Your task to perform on an android device: toggle notification dots Image 0: 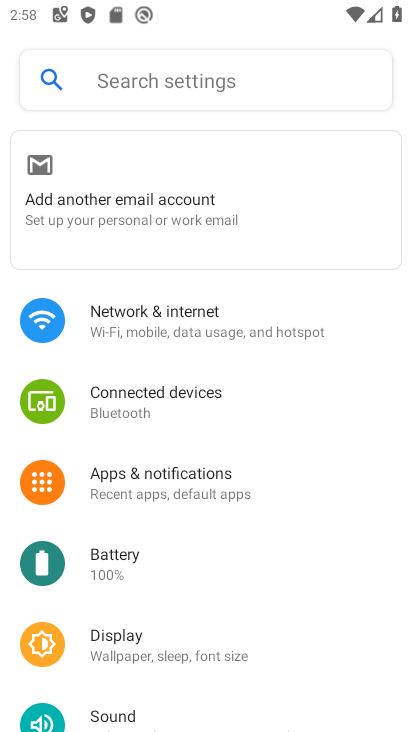
Step 0: press home button
Your task to perform on an android device: toggle notification dots Image 1: 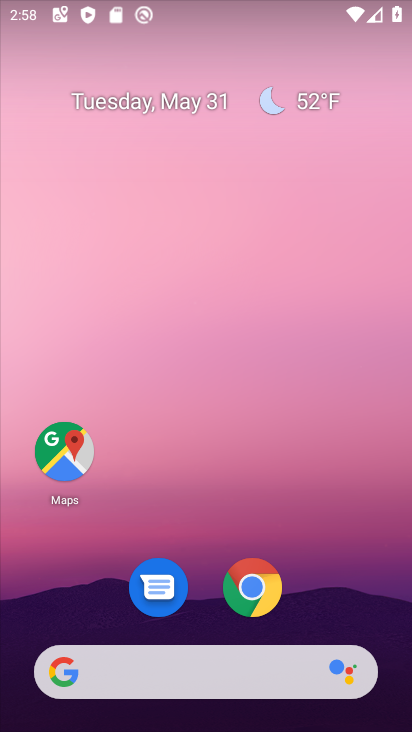
Step 1: drag from (348, 615) to (232, 141)
Your task to perform on an android device: toggle notification dots Image 2: 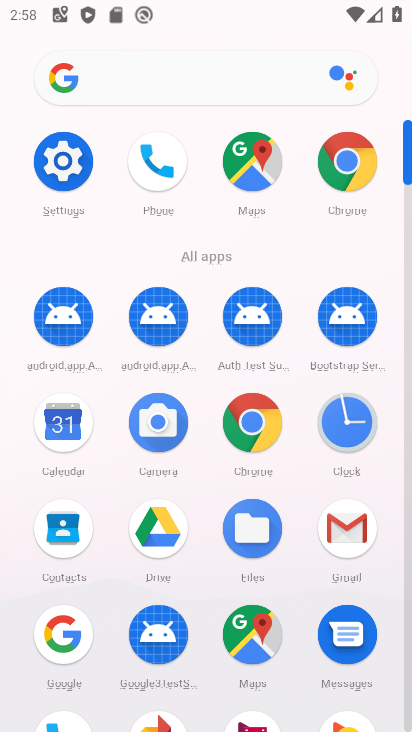
Step 2: click (59, 161)
Your task to perform on an android device: toggle notification dots Image 3: 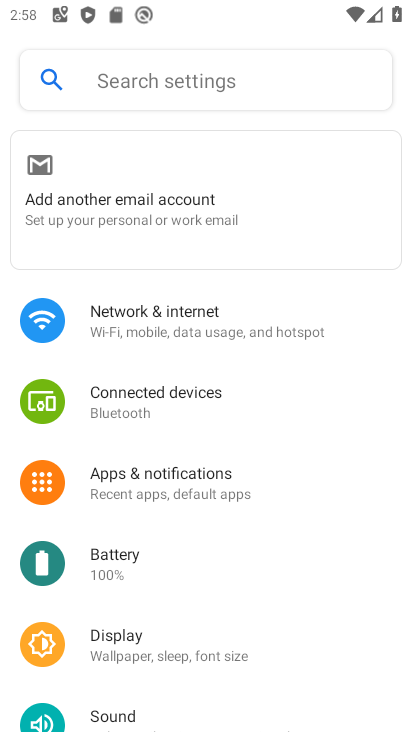
Step 3: click (159, 479)
Your task to perform on an android device: toggle notification dots Image 4: 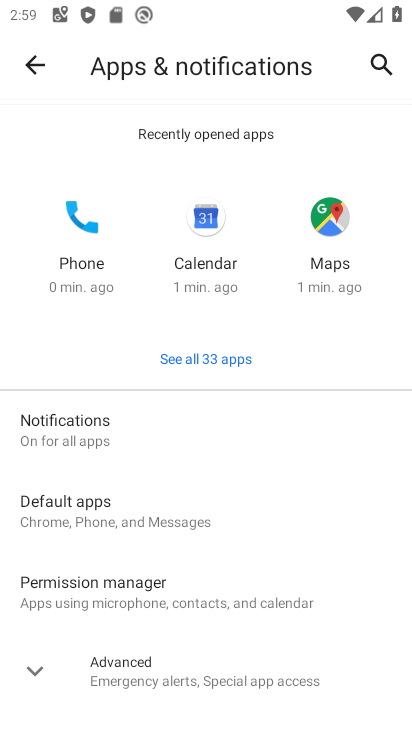
Step 4: click (216, 432)
Your task to perform on an android device: toggle notification dots Image 5: 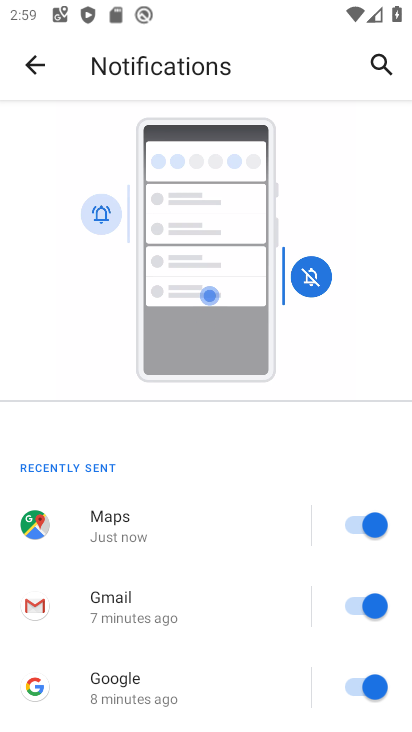
Step 5: drag from (256, 707) to (163, 115)
Your task to perform on an android device: toggle notification dots Image 6: 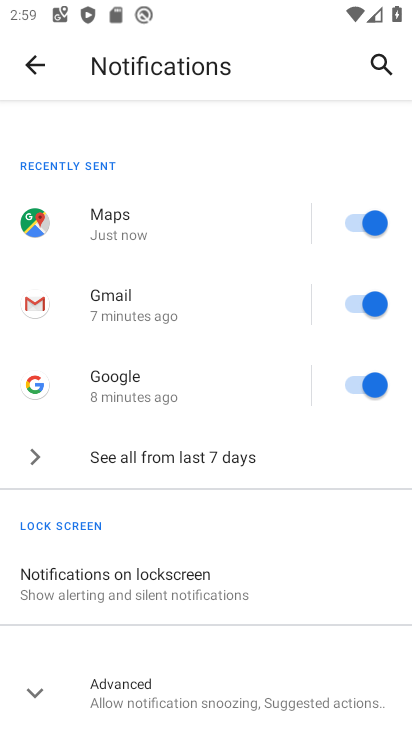
Step 6: click (201, 694)
Your task to perform on an android device: toggle notification dots Image 7: 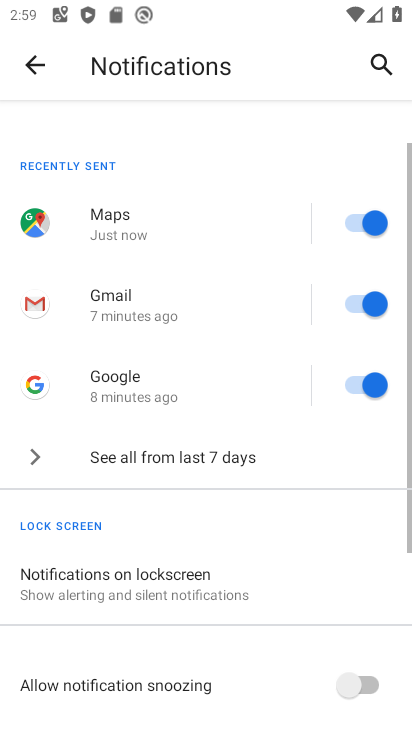
Step 7: drag from (234, 651) to (242, 136)
Your task to perform on an android device: toggle notification dots Image 8: 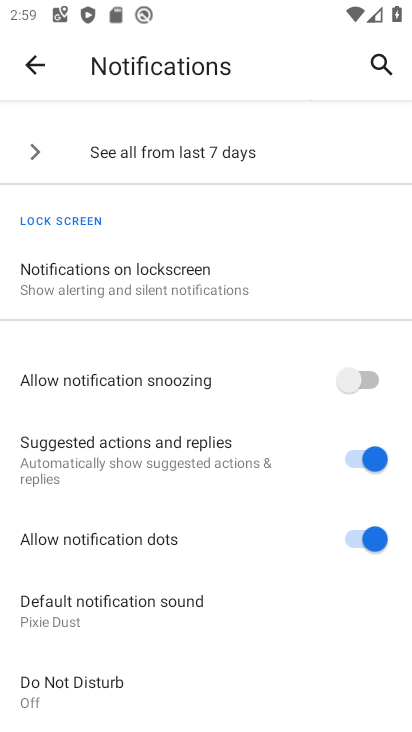
Step 8: click (370, 540)
Your task to perform on an android device: toggle notification dots Image 9: 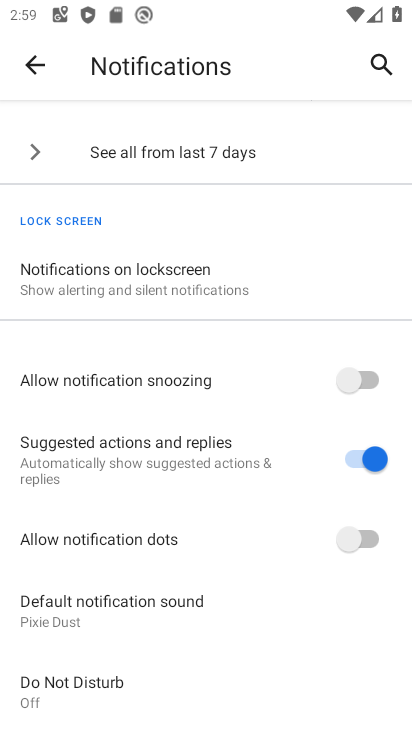
Step 9: task complete